Your task to perform on an android device: turn on sleep mode Image 0: 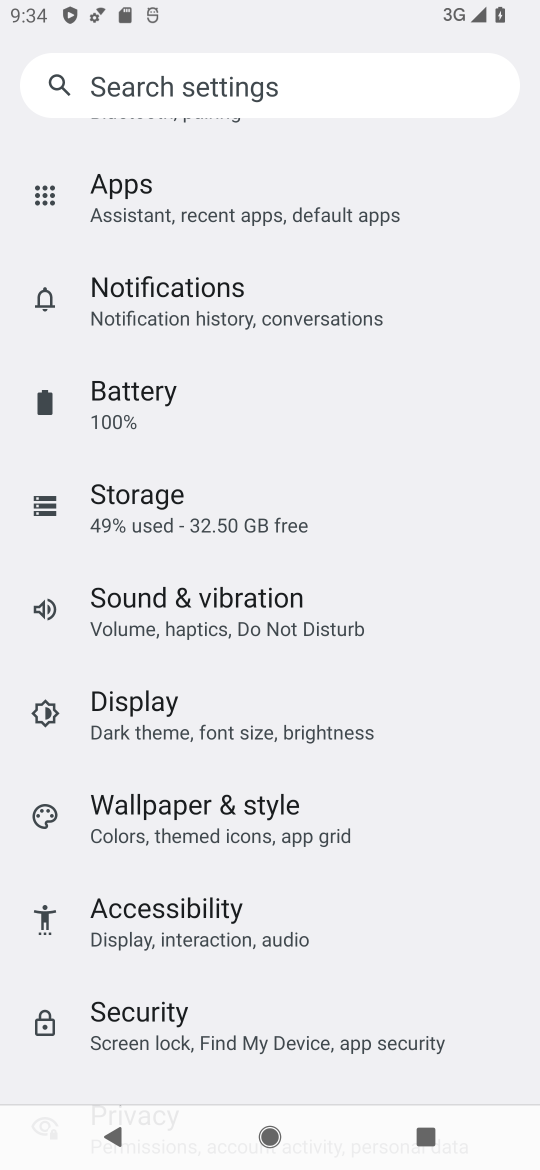
Step 0: drag from (328, 456) to (263, 995)
Your task to perform on an android device: turn on sleep mode Image 1: 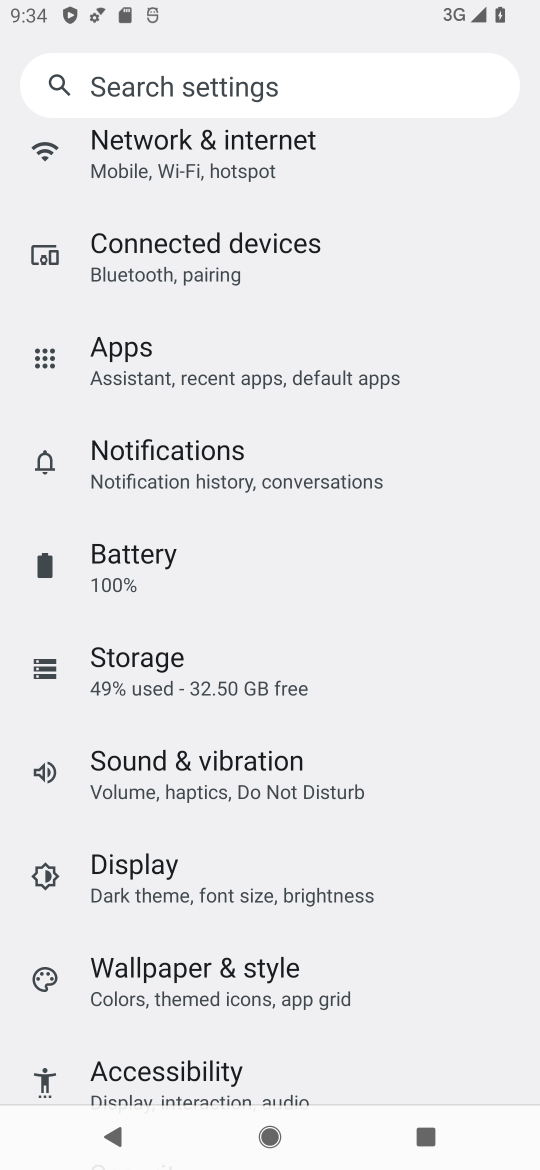
Step 1: click (133, 853)
Your task to perform on an android device: turn on sleep mode Image 2: 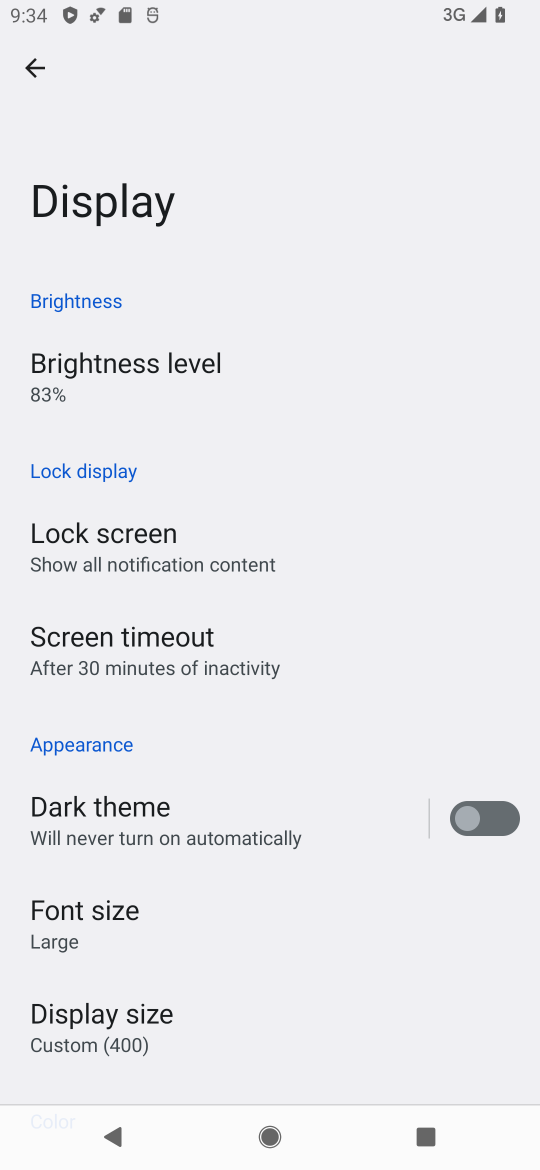
Step 2: task complete